Your task to perform on an android device: Open calendar and show me the second week of next month Image 0: 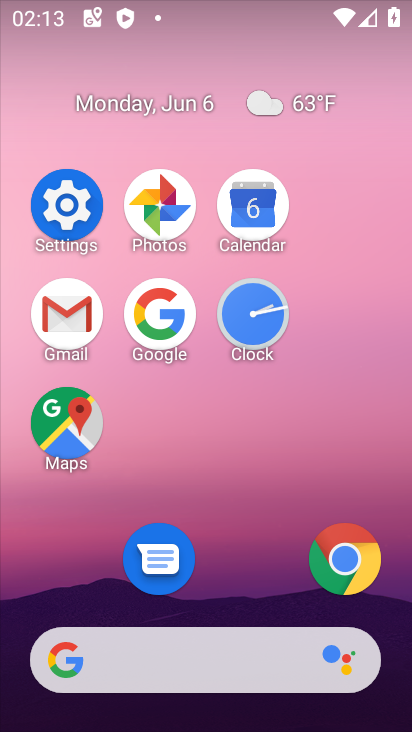
Step 0: click (240, 209)
Your task to perform on an android device: Open calendar and show me the second week of next month Image 1: 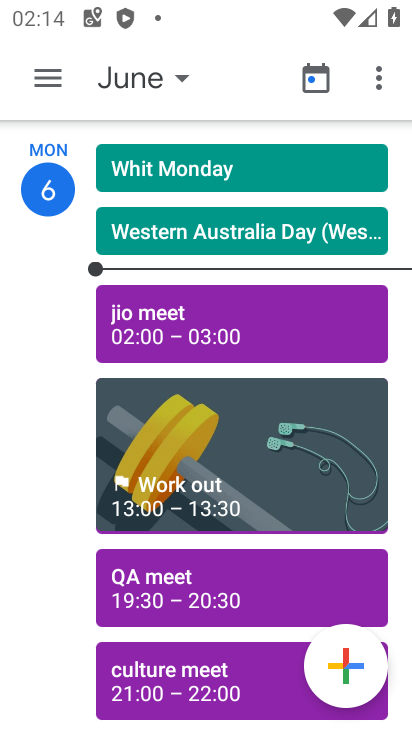
Step 1: click (177, 85)
Your task to perform on an android device: Open calendar and show me the second week of next month Image 2: 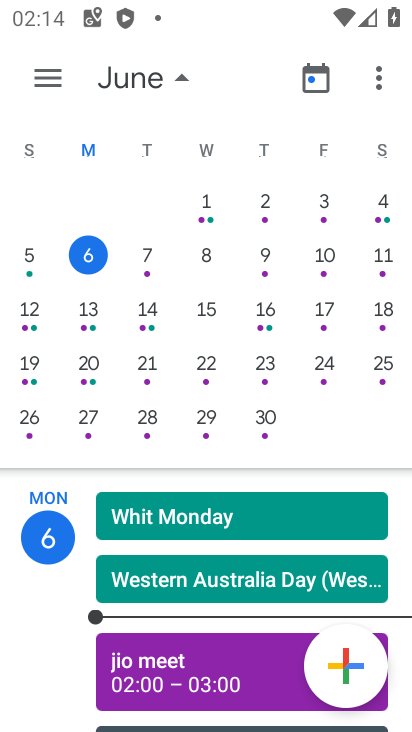
Step 2: drag from (363, 339) to (4, 245)
Your task to perform on an android device: Open calendar and show me the second week of next month Image 3: 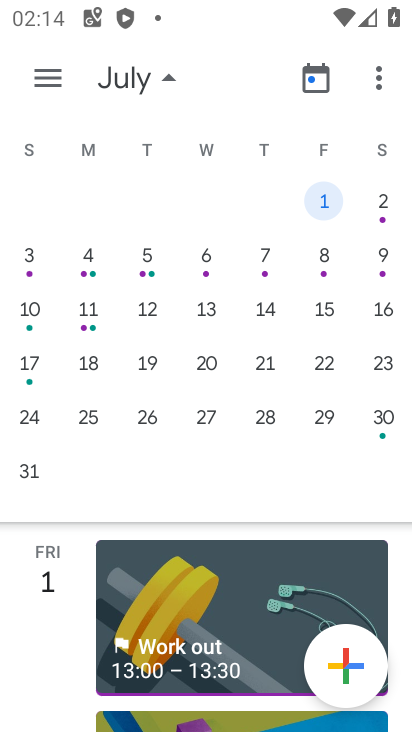
Step 3: click (57, 79)
Your task to perform on an android device: Open calendar and show me the second week of next month Image 4: 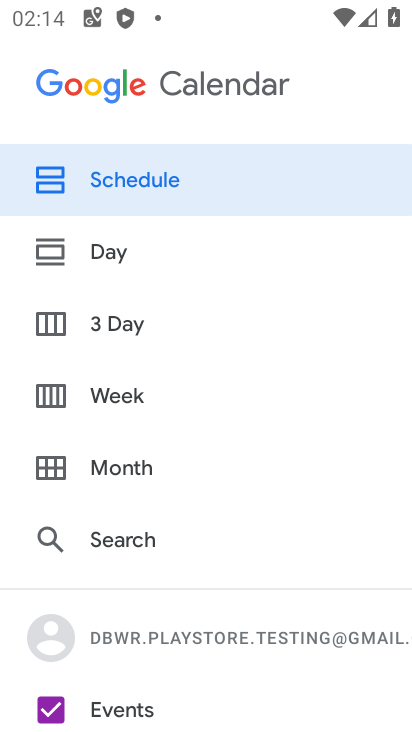
Step 4: click (161, 395)
Your task to perform on an android device: Open calendar and show me the second week of next month Image 5: 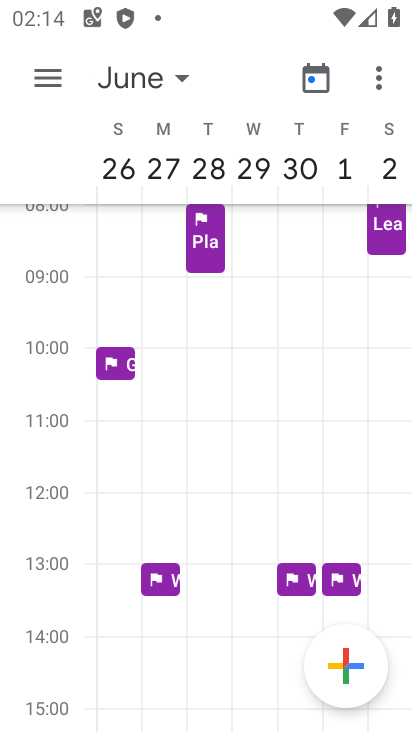
Step 5: task complete